Your task to perform on an android device: Set the phone to "Do not disturb". Image 0: 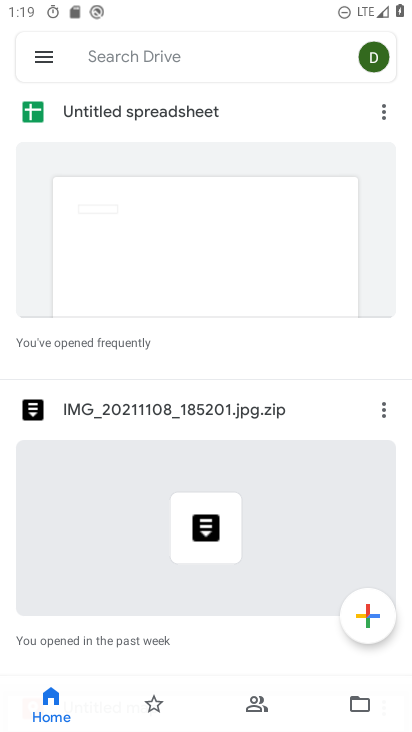
Step 0: drag from (239, 11) to (283, 464)
Your task to perform on an android device: Set the phone to "Do not disturb". Image 1: 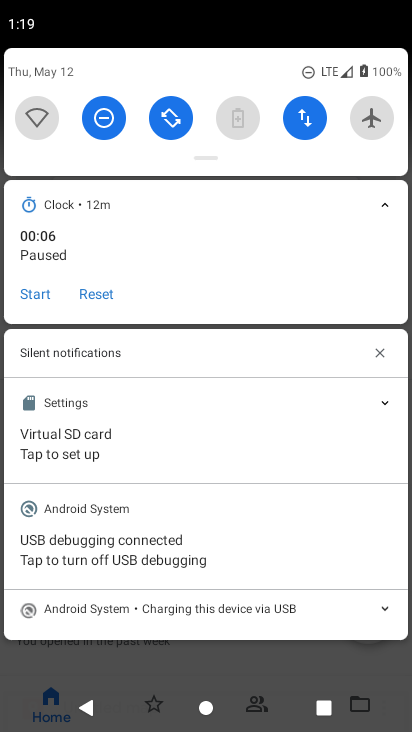
Step 1: task complete